Your task to perform on an android device: turn off smart reply in the gmail app Image 0: 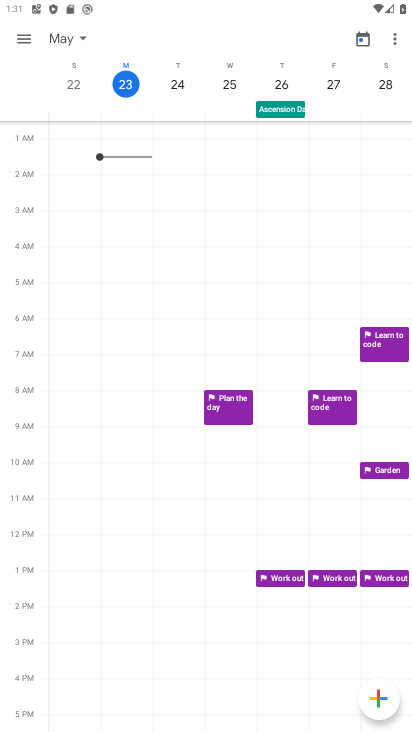
Step 0: press back button
Your task to perform on an android device: turn off smart reply in the gmail app Image 1: 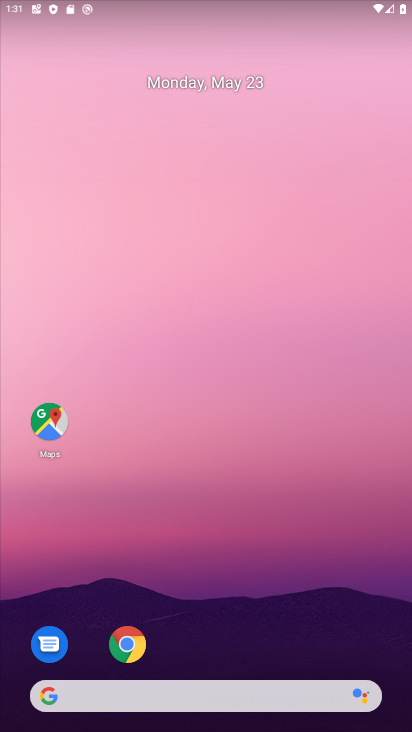
Step 1: drag from (223, 508) to (209, 5)
Your task to perform on an android device: turn off smart reply in the gmail app Image 2: 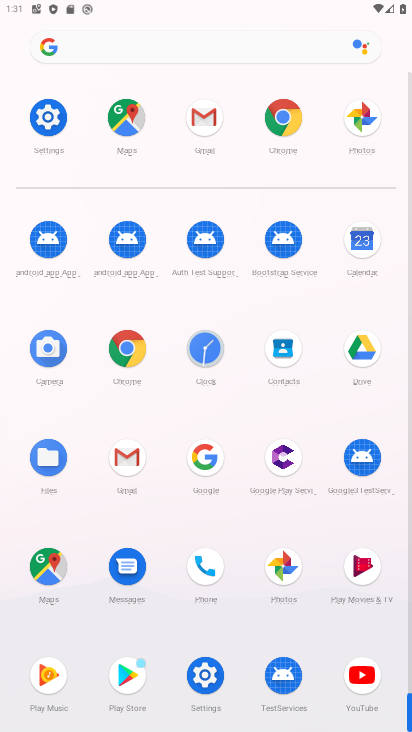
Step 2: drag from (13, 604) to (24, 180)
Your task to perform on an android device: turn off smart reply in the gmail app Image 3: 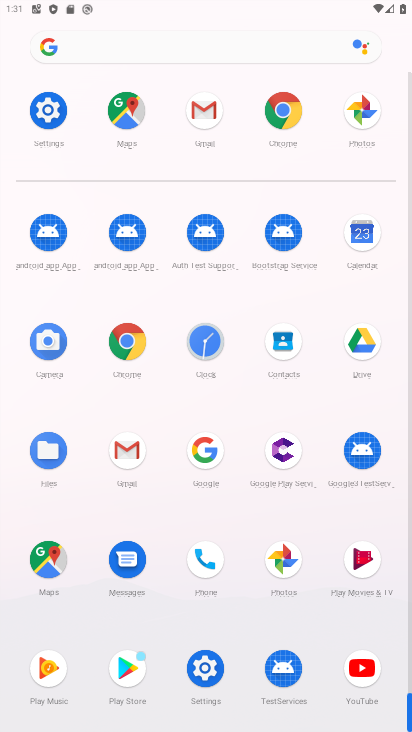
Step 3: click (124, 446)
Your task to perform on an android device: turn off smart reply in the gmail app Image 4: 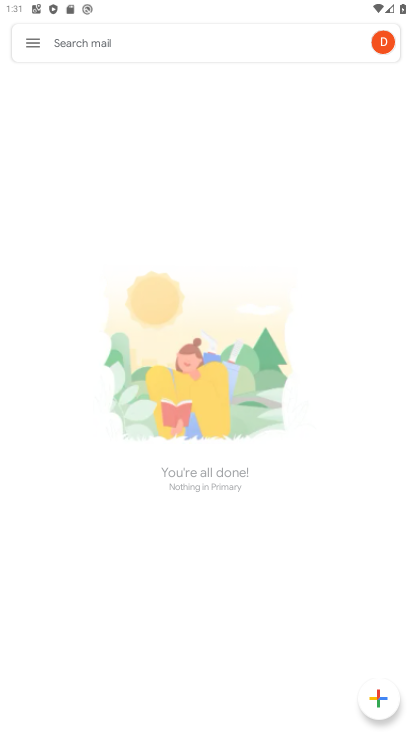
Step 4: click (39, 44)
Your task to perform on an android device: turn off smart reply in the gmail app Image 5: 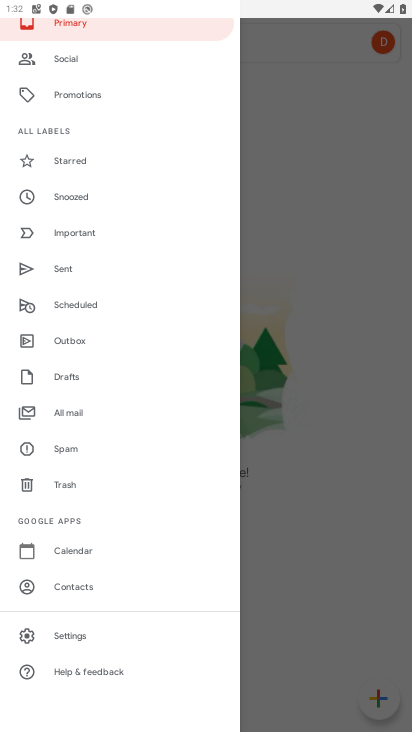
Step 5: click (77, 626)
Your task to perform on an android device: turn off smart reply in the gmail app Image 6: 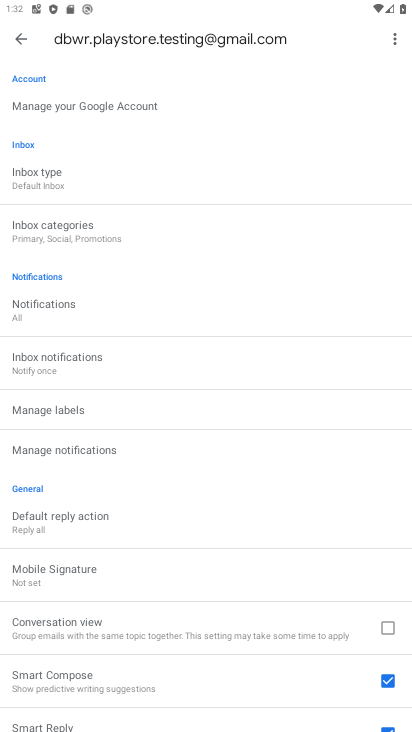
Step 6: drag from (156, 603) to (151, 145)
Your task to perform on an android device: turn off smart reply in the gmail app Image 7: 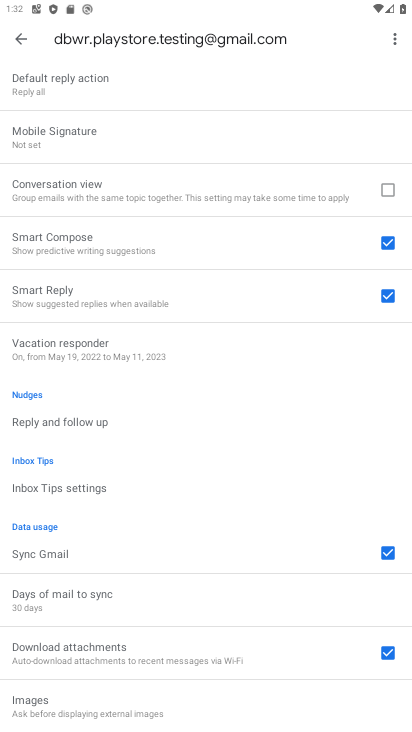
Step 7: drag from (158, 593) to (212, 42)
Your task to perform on an android device: turn off smart reply in the gmail app Image 8: 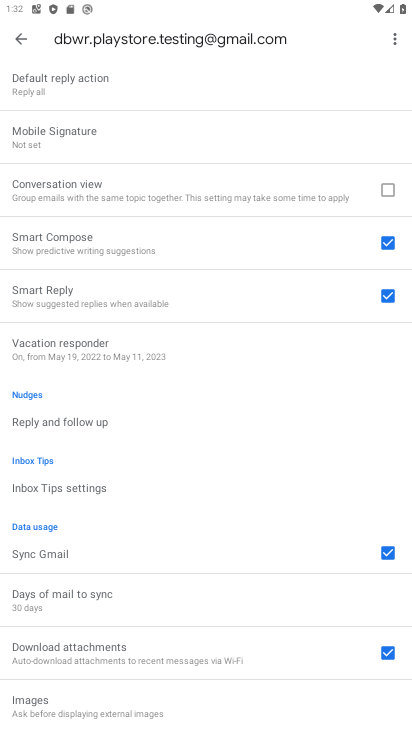
Step 8: click (381, 292)
Your task to perform on an android device: turn off smart reply in the gmail app Image 9: 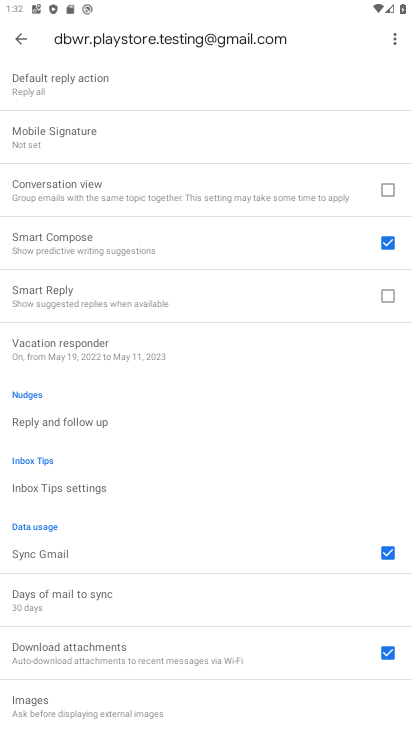
Step 9: task complete